Your task to perform on an android device: turn on data saver in the chrome app Image 0: 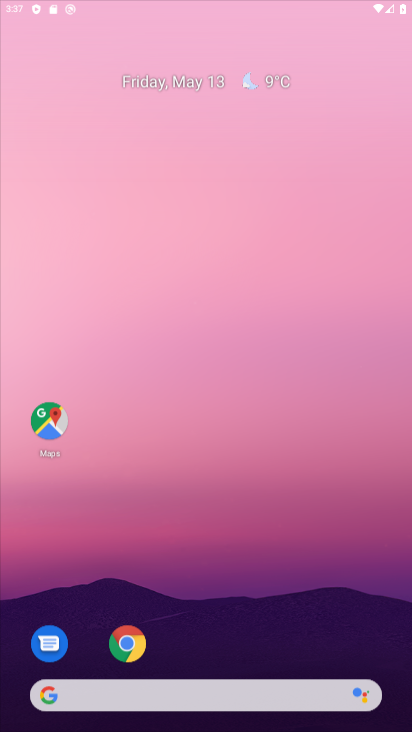
Step 0: click (138, 636)
Your task to perform on an android device: turn on data saver in the chrome app Image 1: 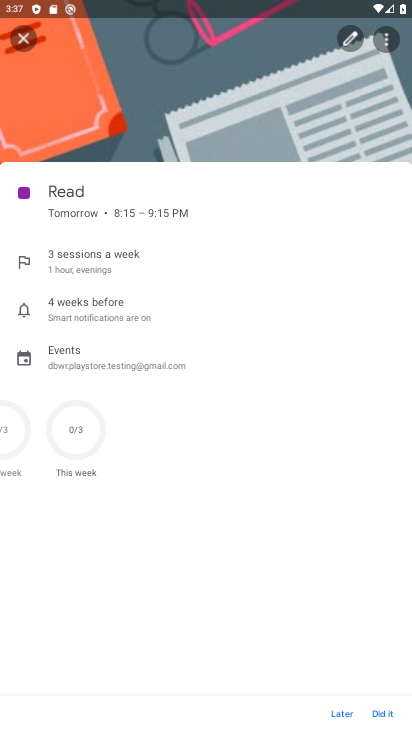
Step 1: press home button
Your task to perform on an android device: turn on data saver in the chrome app Image 2: 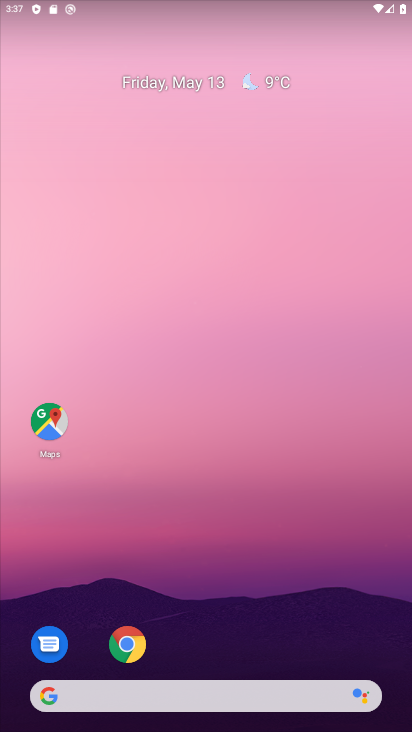
Step 2: drag from (246, 562) to (227, 162)
Your task to perform on an android device: turn on data saver in the chrome app Image 3: 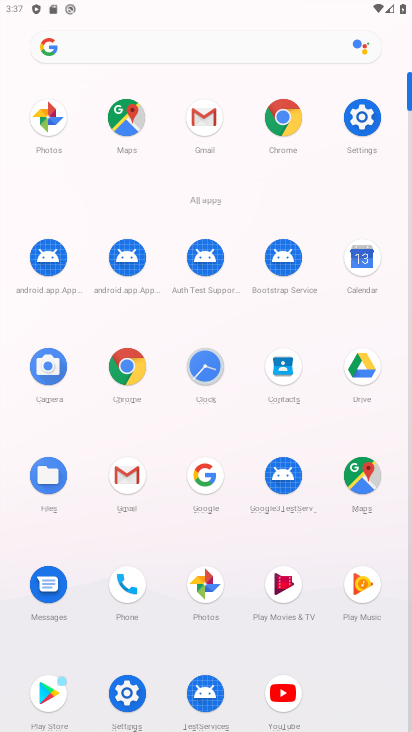
Step 3: click (293, 130)
Your task to perform on an android device: turn on data saver in the chrome app Image 4: 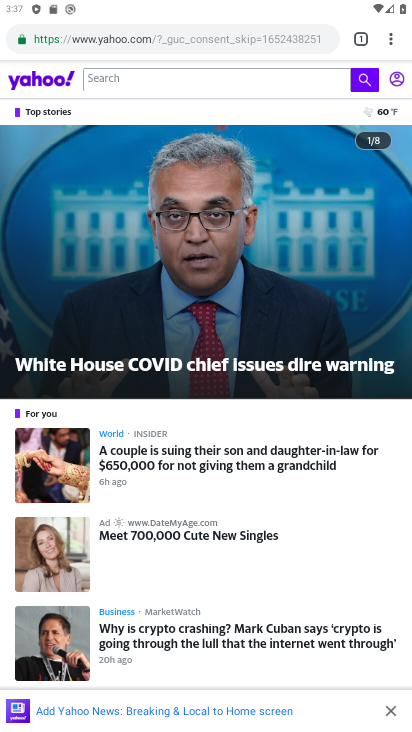
Step 4: drag from (387, 42) to (292, 470)
Your task to perform on an android device: turn on data saver in the chrome app Image 5: 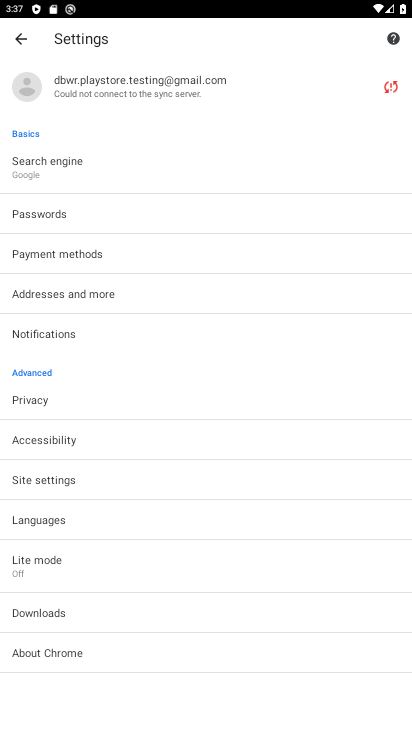
Step 5: click (57, 575)
Your task to perform on an android device: turn on data saver in the chrome app Image 6: 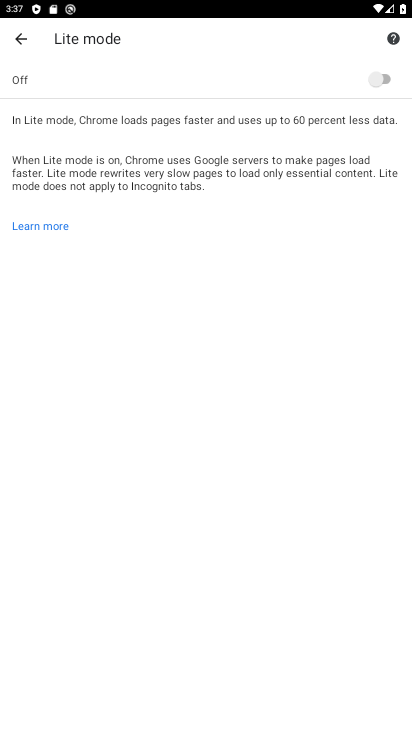
Step 6: click (379, 74)
Your task to perform on an android device: turn on data saver in the chrome app Image 7: 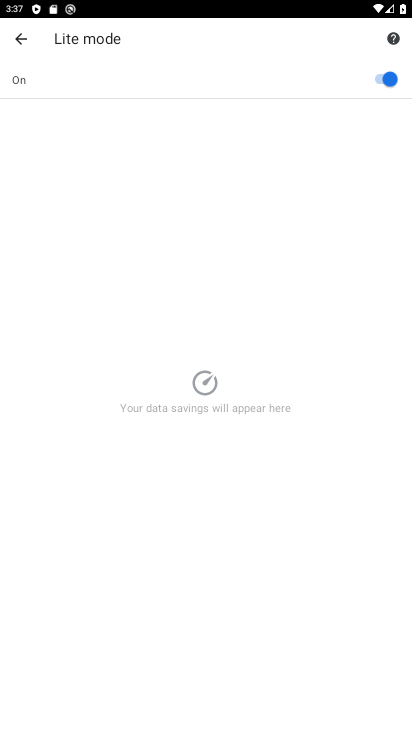
Step 7: task complete